Your task to perform on an android device: Go to location settings Image 0: 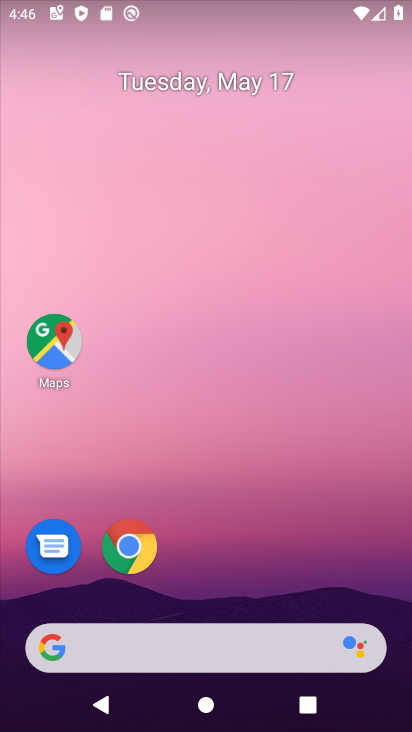
Step 0: drag from (253, 514) to (315, 21)
Your task to perform on an android device: Go to location settings Image 1: 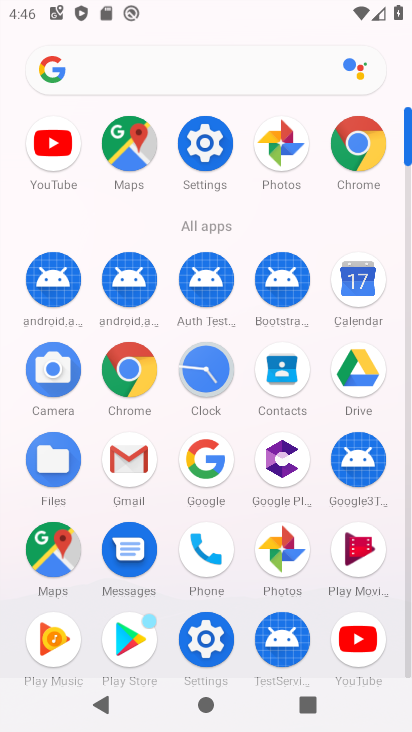
Step 1: click (203, 146)
Your task to perform on an android device: Go to location settings Image 2: 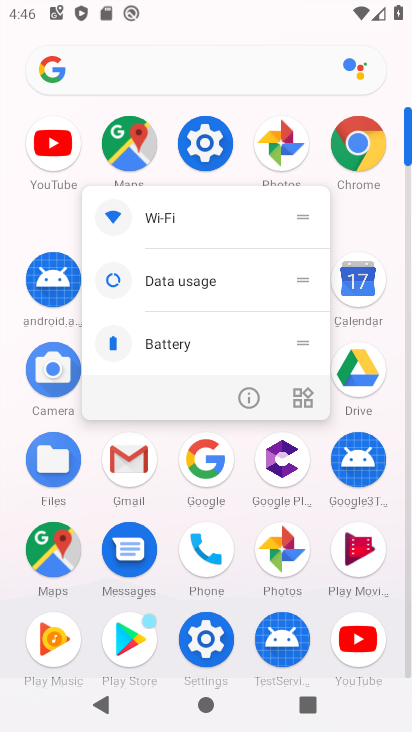
Step 2: click (210, 142)
Your task to perform on an android device: Go to location settings Image 3: 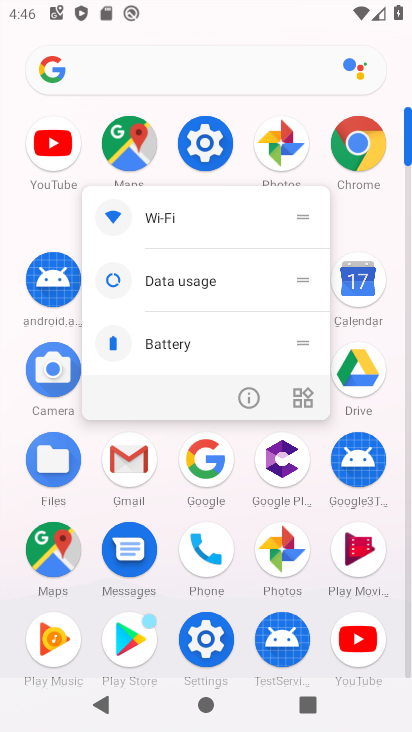
Step 3: click (207, 139)
Your task to perform on an android device: Go to location settings Image 4: 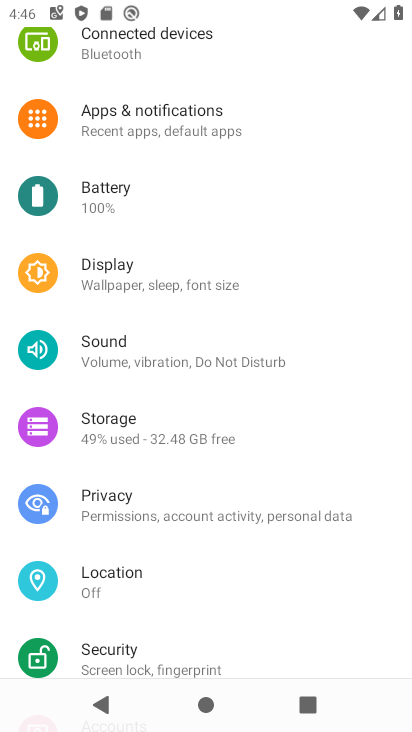
Step 4: click (111, 593)
Your task to perform on an android device: Go to location settings Image 5: 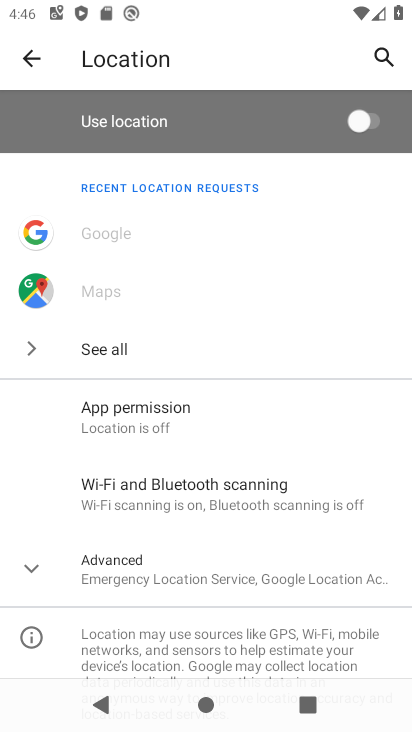
Step 5: task complete